Your task to perform on an android device: Go to internet settings Image 0: 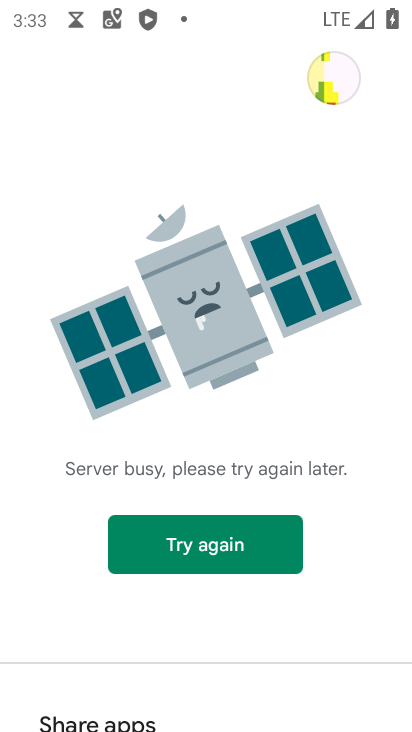
Step 0: press home button
Your task to perform on an android device: Go to internet settings Image 1: 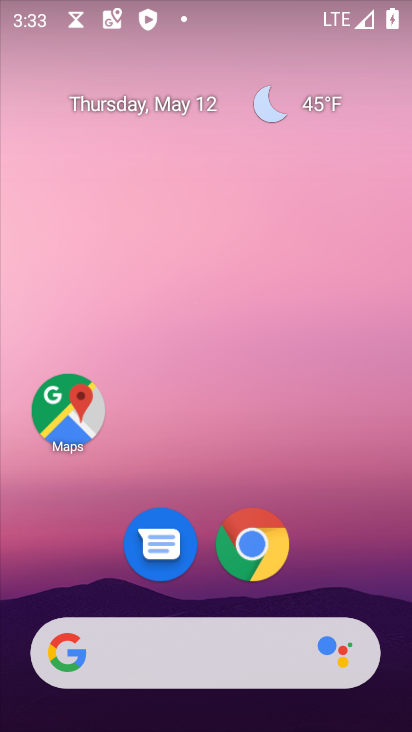
Step 1: drag from (342, 584) to (277, 147)
Your task to perform on an android device: Go to internet settings Image 2: 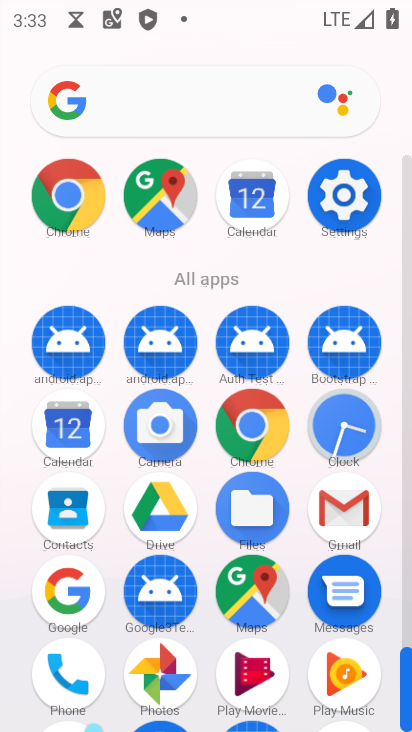
Step 2: click (326, 206)
Your task to perform on an android device: Go to internet settings Image 3: 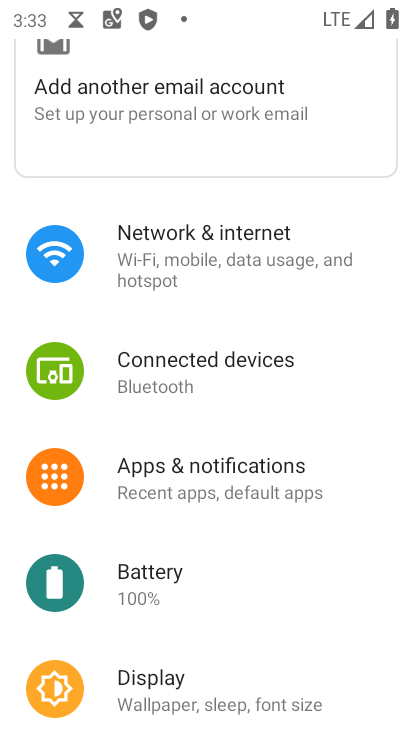
Step 3: click (207, 274)
Your task to perform on an android device: Go to internet settings Image 4: 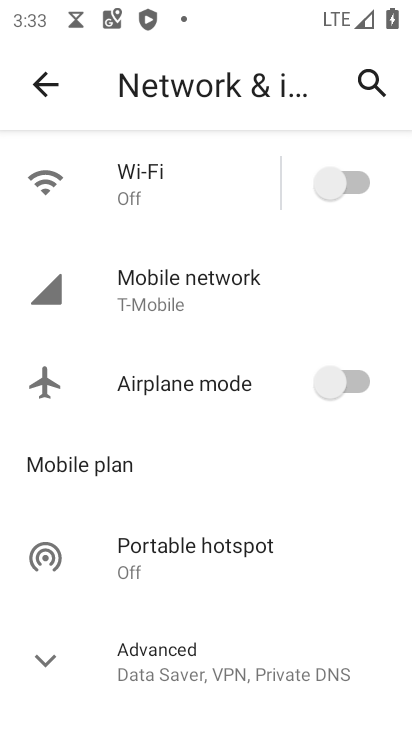
Step 4: click (133, 302)
Your task to perform on an android device: Go to internet settings Image 5: 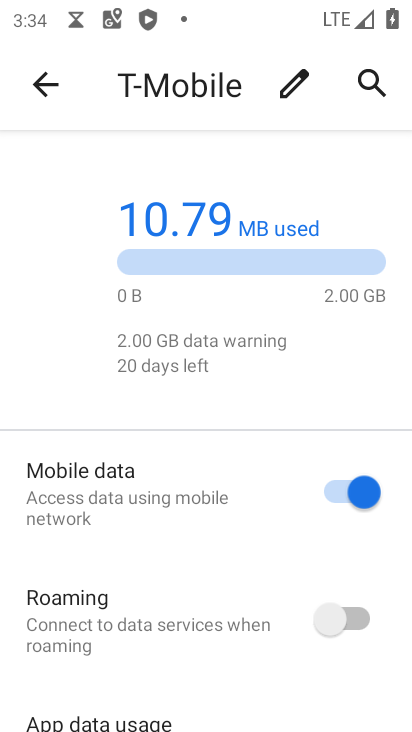
Step 5: task complete